Your task to perform on an android device: Open Android settings Image 0: 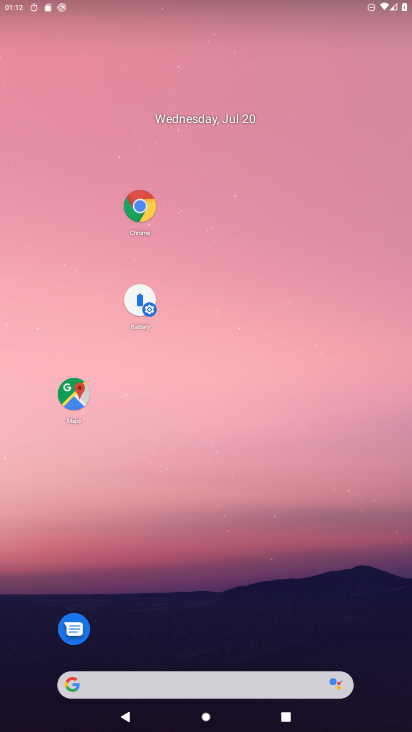
Step 0: drag from (220, 607) to (311, 39)
Your task to perform on an android device: Open Android settings Image 1: 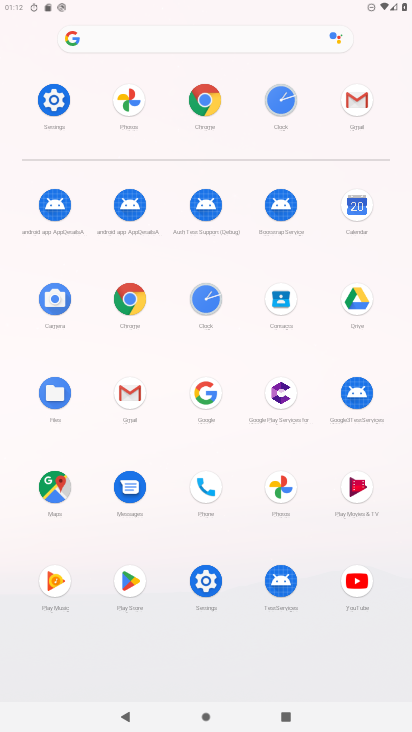
Step 1: click (194, 579)
Your task to perform on an android device: Open Android settings Image 2: 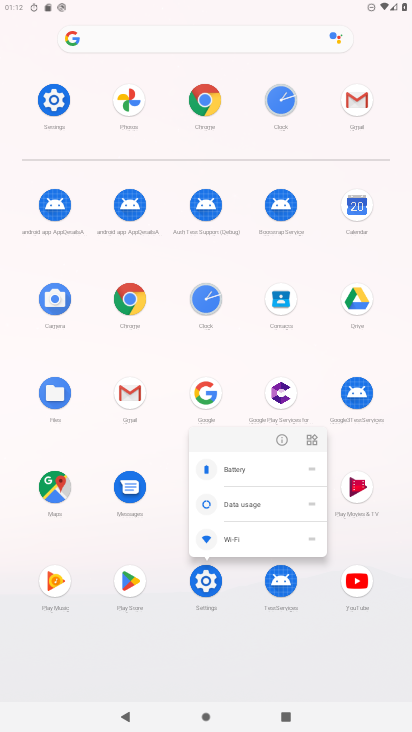
Step 2: click (283, 439)
Your task to perform on an android device: Open Android settings Image 3: 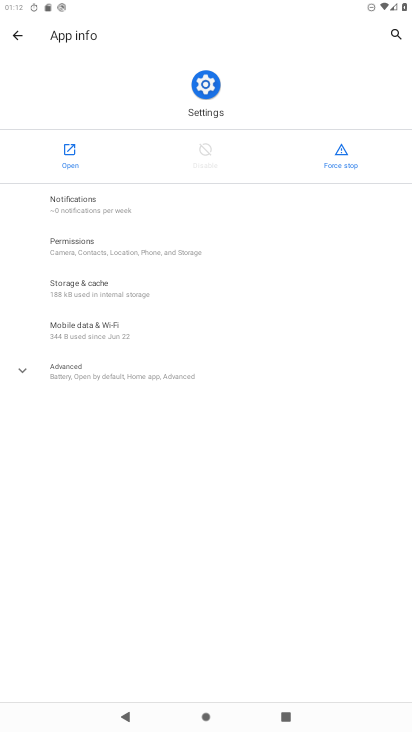
Step 3: click (67, 148)
Your task to perform on an android device: Open Android settings Image 4: 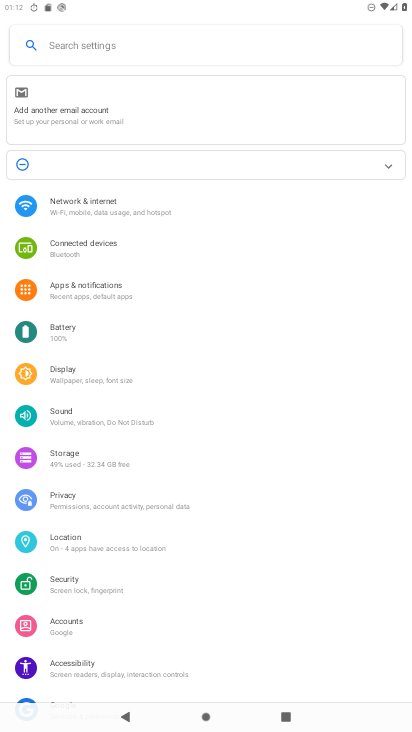
Step 4: drag from (164, 633) to (279, 132)
Your task to perform on an android device: Open Android settings Image 5: 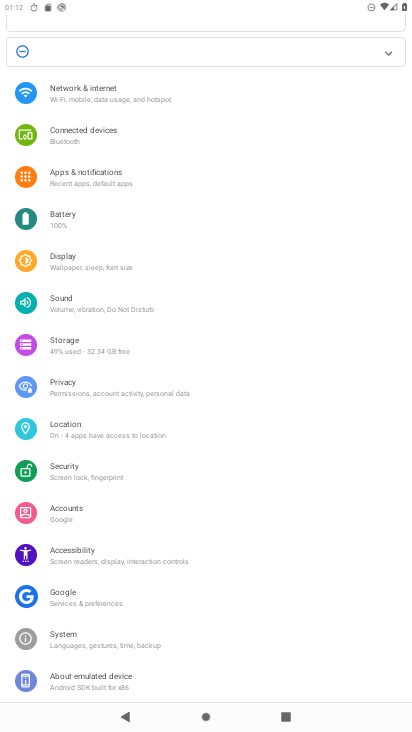
Step 5: click (109, 679)
Your task to perform on an android device: Open Android settings Image 6: 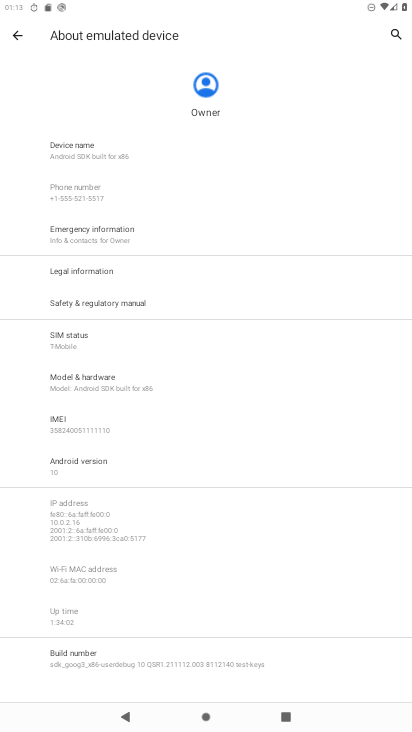
Step 6: drag from (196, 573) to (286, 19)
Your task to perform on an android device: Open Android settings Image 7: 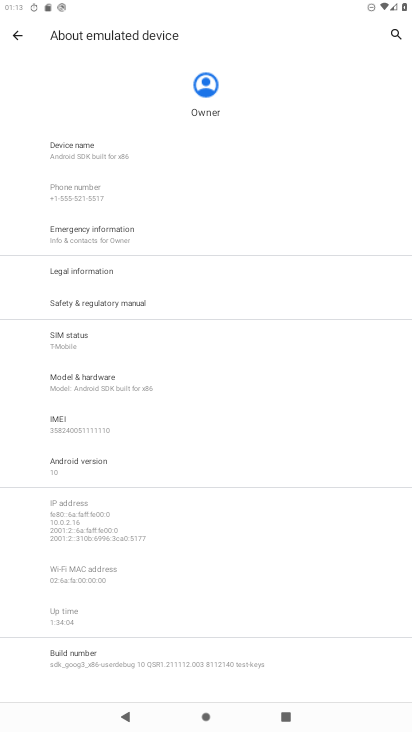
Step 7: drag from (156, 582) to (260, 188)
Your task to perform on an android device: Open Android settings Image 8: 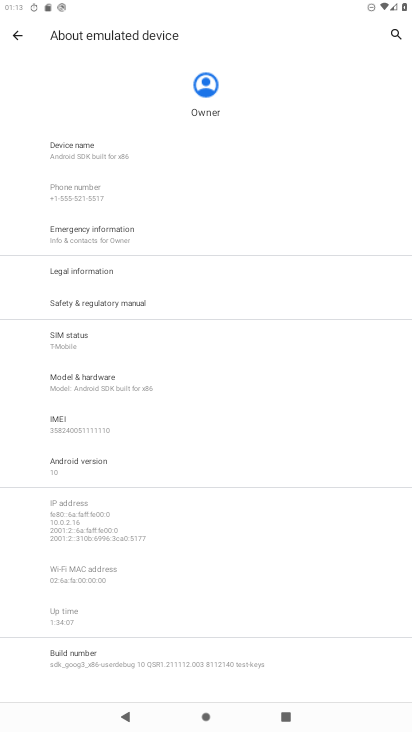
Step 8: drag from (207, 591) to (242, 354)
Your task to perform on an android device: Open Android settings Image 9: 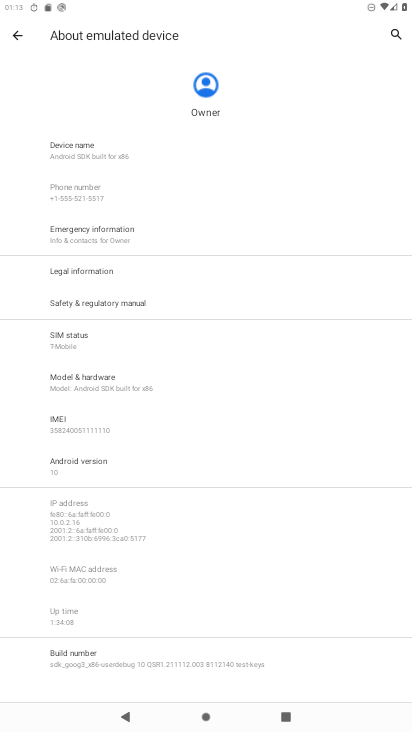
Step 9: click (88, 470)
Your task to perform on an android device: Open Android settings Image 10: 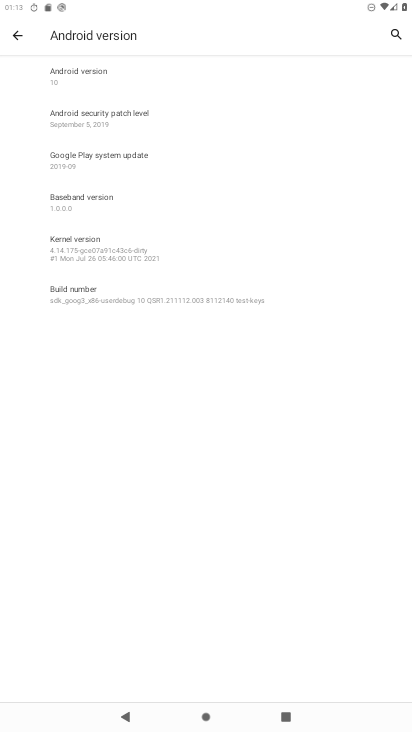
Step 10: task complete